Your task to perform on an android device: turn notification dots on Image 0: 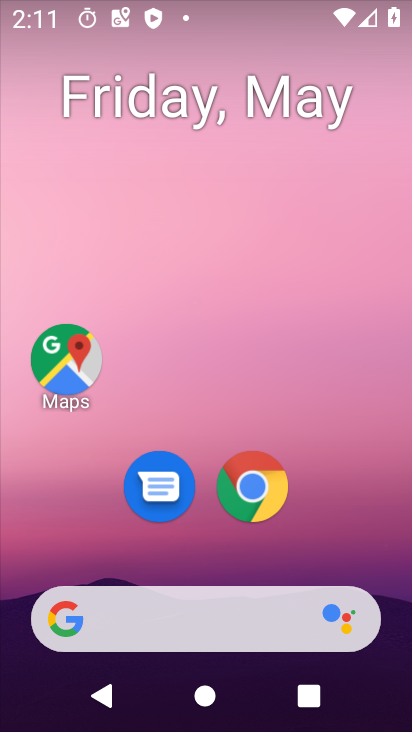
Step 0: drag from (385, 708) to (307, 142)
Your task to perform on an android device: turn notification dots on Image 1: 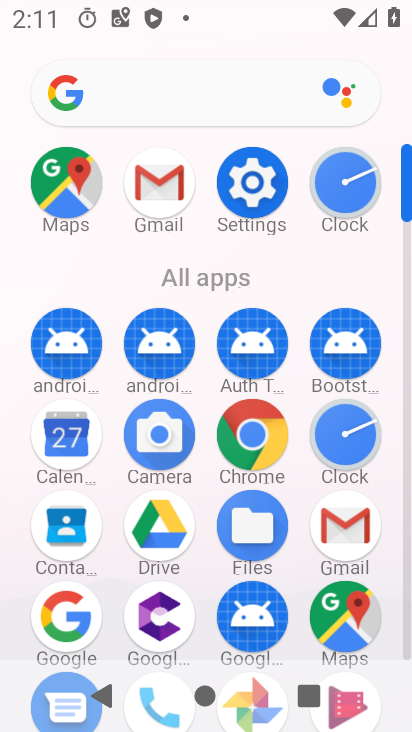
Step 1: click (238, 184)
Your task to perform on an android device: turn notification dots on Image 2: 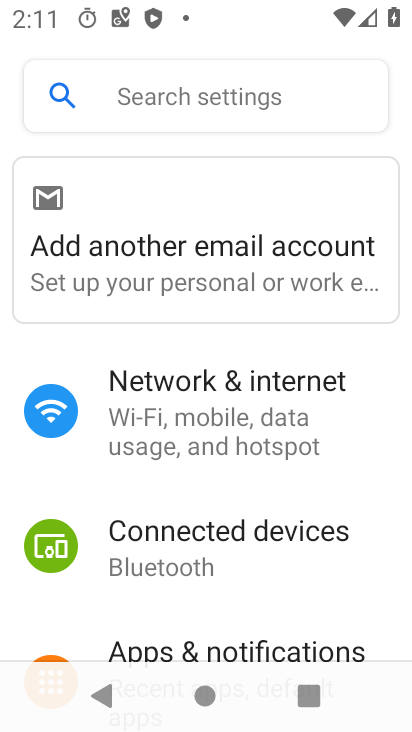
Step 2: click (225, 645)
Your task to perform on an android device: turn notification dots on Image 3: 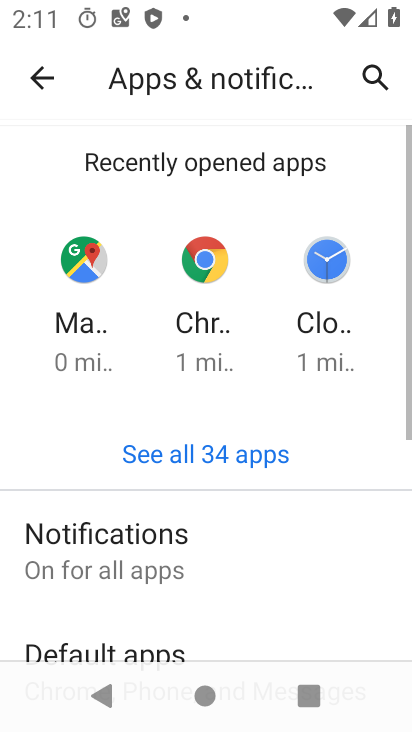
Step 3: click (127, 551)
Your task to perform on an android device: turn notification dots on Image 4: 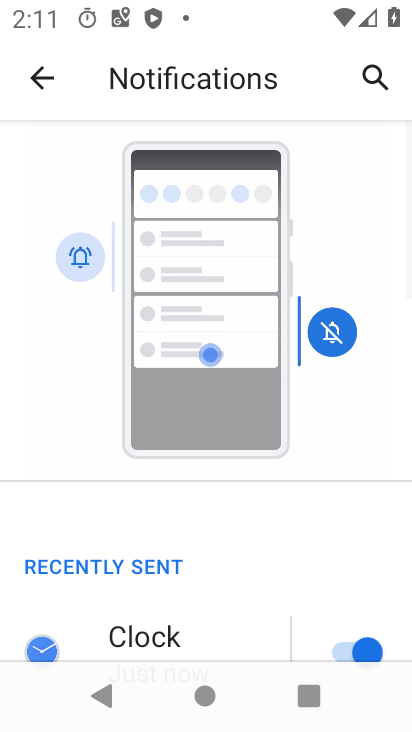
Step 4: drag from (248, 641) to (242, 105)
Your task to perform on an android device: turn notification dots on Image 5: 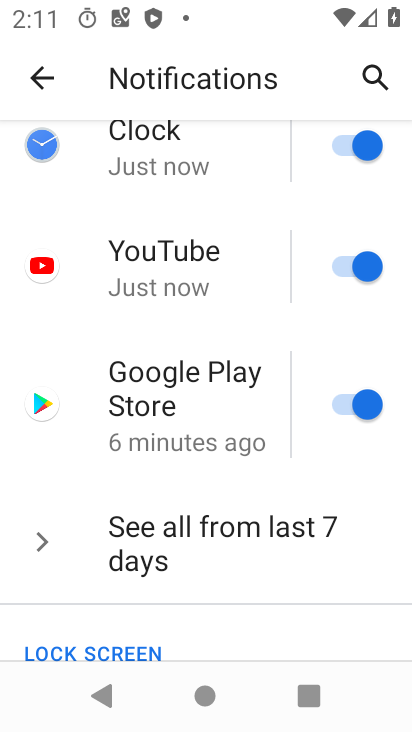
Step 5: drag from (236, 635) to (216, 62)
Your task to perform on an android device: turn notification dots on Image 6: 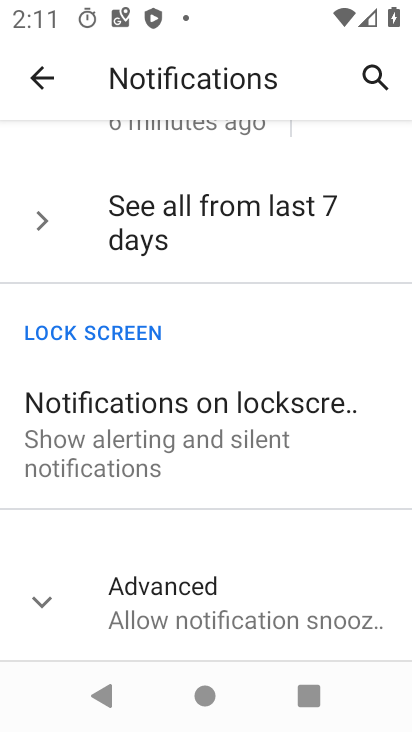
Step 6: drag from (255, 583) to (286, 94)
Your task to perform on an android device: turn notification dots on Image 7: 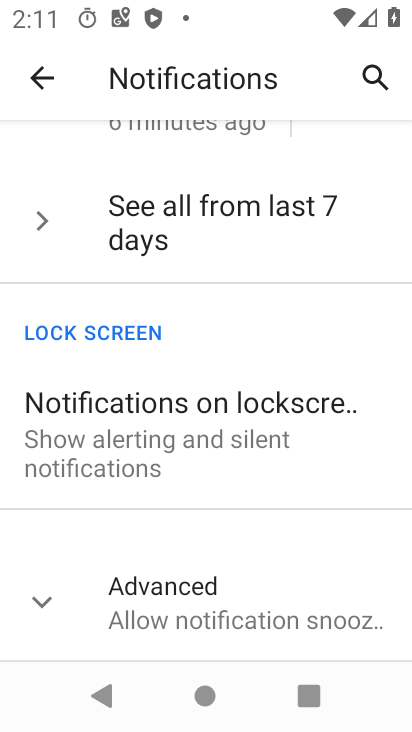
Step 7: click (29, 604)
Your task to perform on an android device: turn notification dots on Image 8: 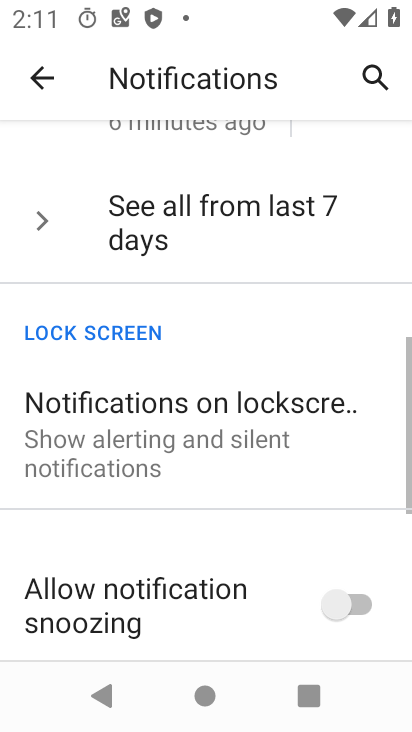
Step 8: task complete